Your task to perform on an android device: change notification settings in the gmail app Image 0: 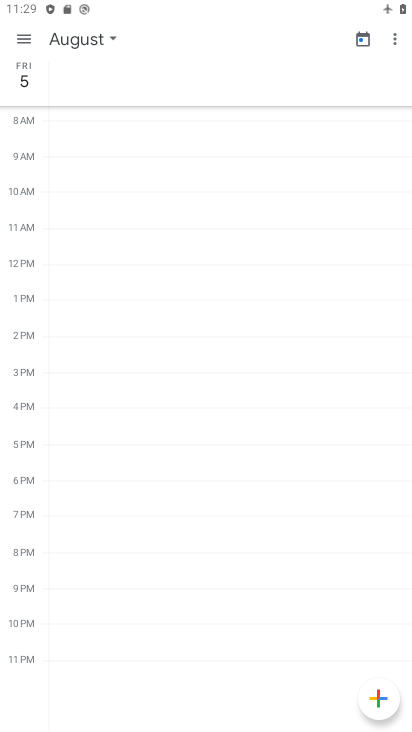
Step 0: press home button
Your task to perform on an android device: change notification settings in the gmail app Image 1: 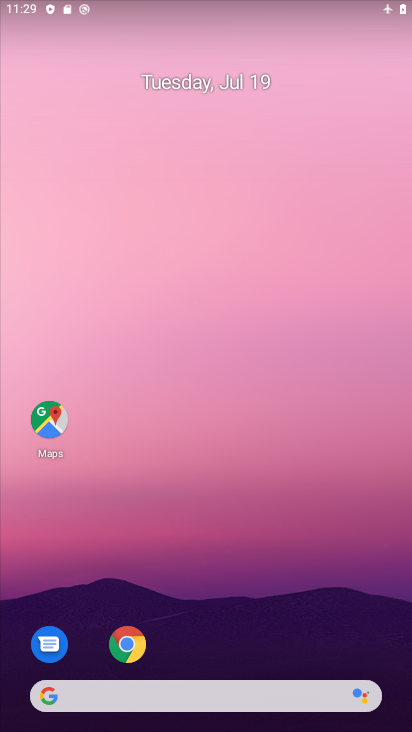
Step 1: drag from (216, 596) to (359, 14)
Your task to perform on an android device: change notification settings in the gmail app Image 2: 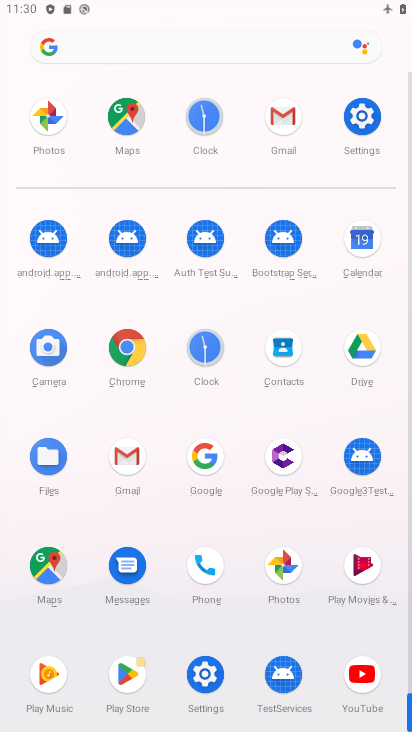
Step 2: click (133, 458)
Your task to perform on an android device: change notification settings in the gmail app Image 3: 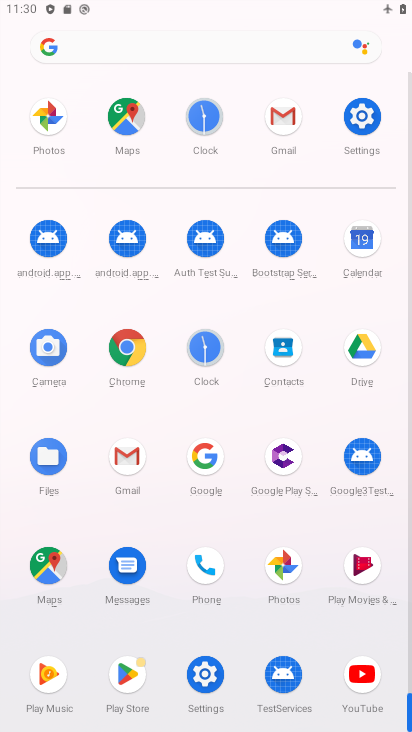
Step 3: click (131, 457)
Your task to perform on an android device: change notification settings in the gmail app Image 4: 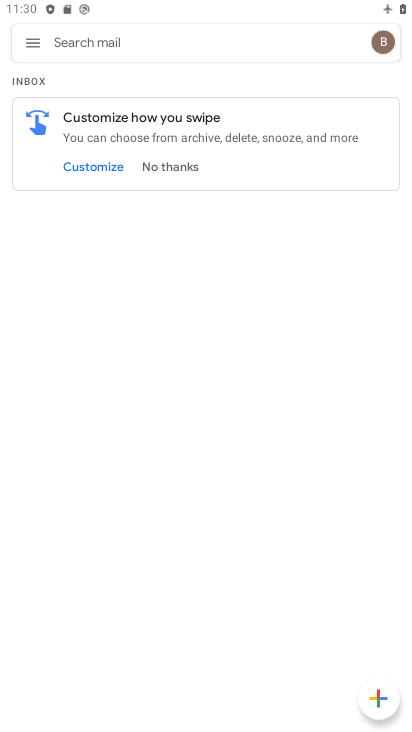
Step 4: click (176, 169)
Your task to perform on an android device: change notification settings in the gmail app Image 5: 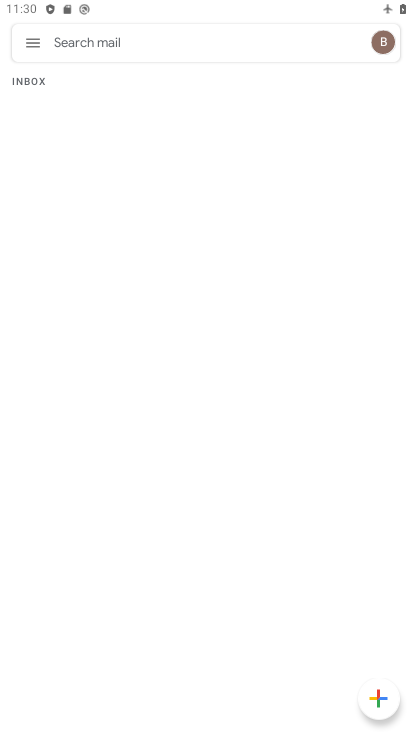
Step 5: drag from (194, 420) to (250, 214)
Your task to perform on an android device: change notification settings in the gmail app Image 6: 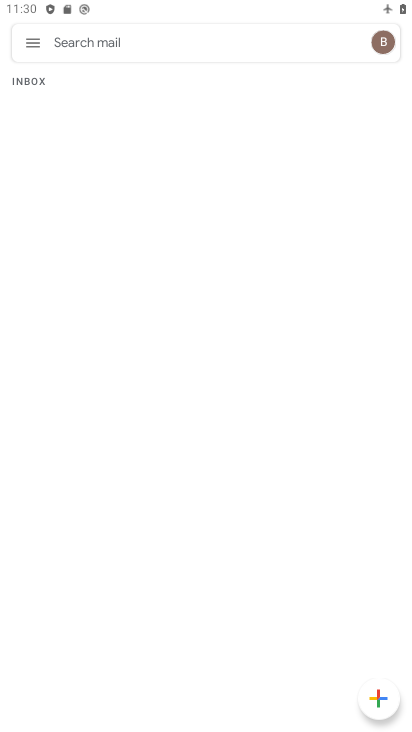
Step 6: drag from (206, 457) to (283, 188)
Your task to perform on an android device: change notification settings in the gmail app Image 7: 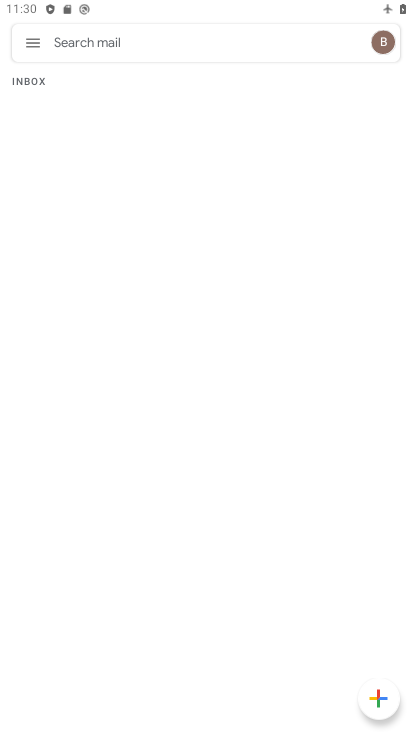
Step 7: drag from (288, 449) to (275, 179)
Your task to perform on an android device: change notification settings in the gmail app Image 8: 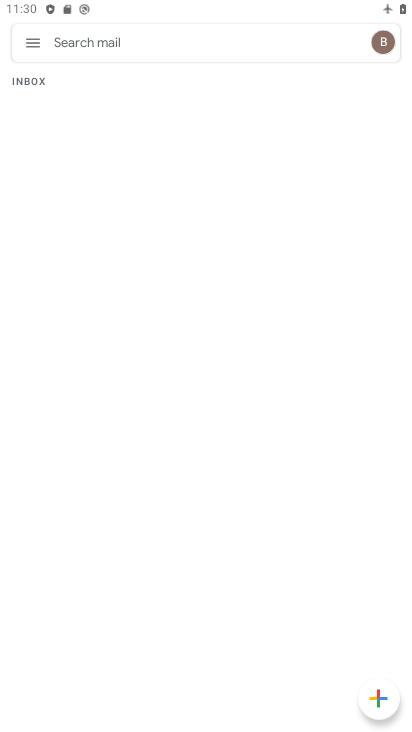
Step 8: click (37, 43)
Your task to perform on an android device: change notification settings in the gmail app Image 9: 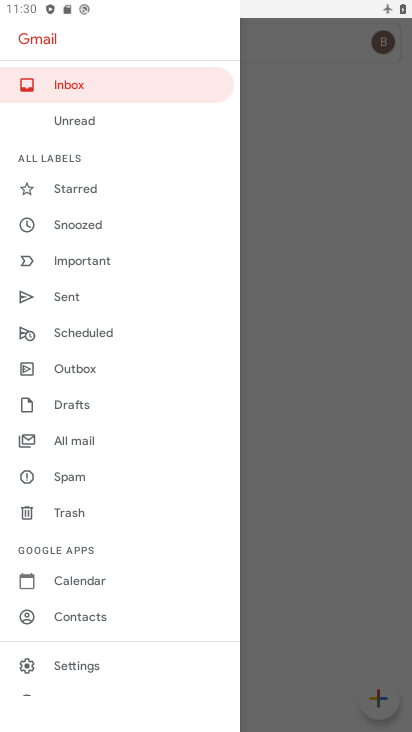
Step 9: click (70, 660)
Your task to perform on an android device: change notification settings in the gmail app Image 10: 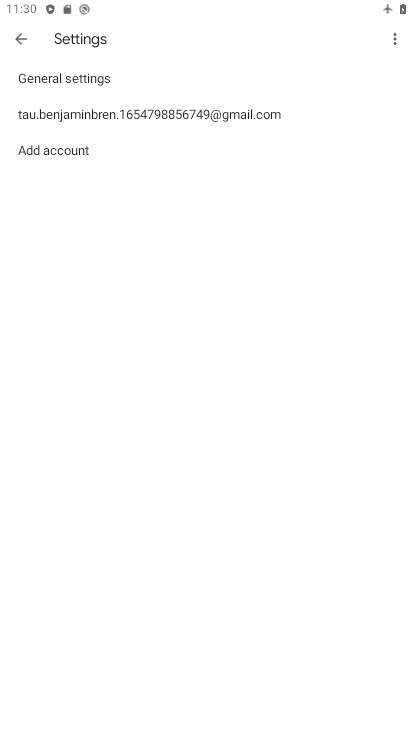
Step 10: click (140, 119)
Your task to perform on an android device: change notification settings in the gmail app Image 11: 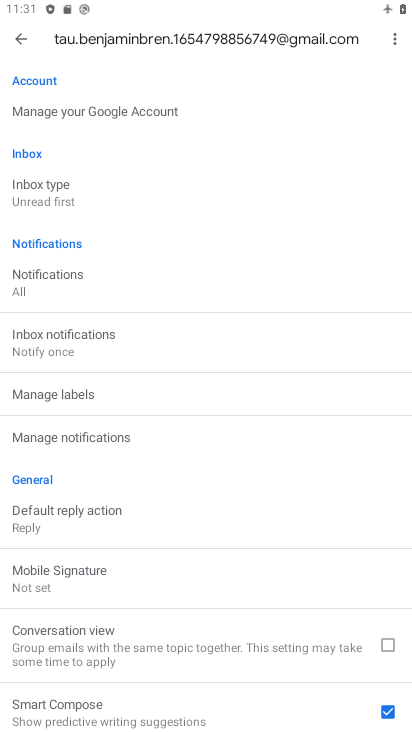
Step 11: click (109, 443)
Your task to perform on an android device: change notification settings in the gmail app Image 12: 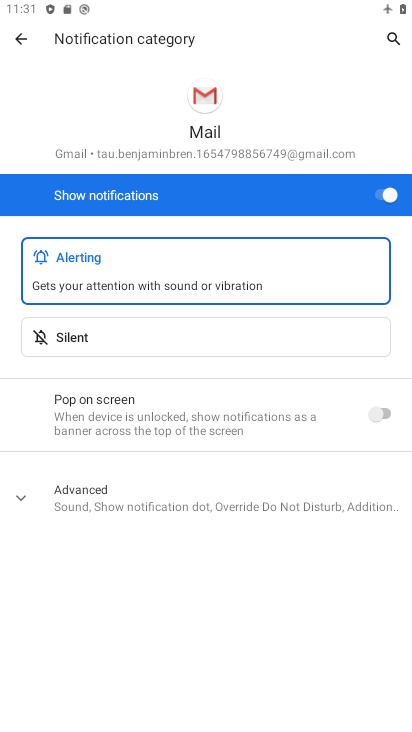
Step 12: drag from (188, 539) to (289, 178)
Your task to perform on an android device: change notification settings in the gmail app Image 13: 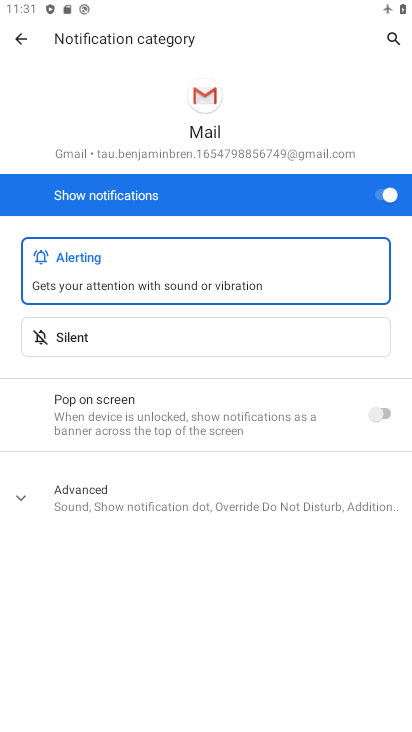
Step 13: drag from (146, 570) to (281, 162)
Your task to perform on an android device: change notification settings in the gmail app Image 14: 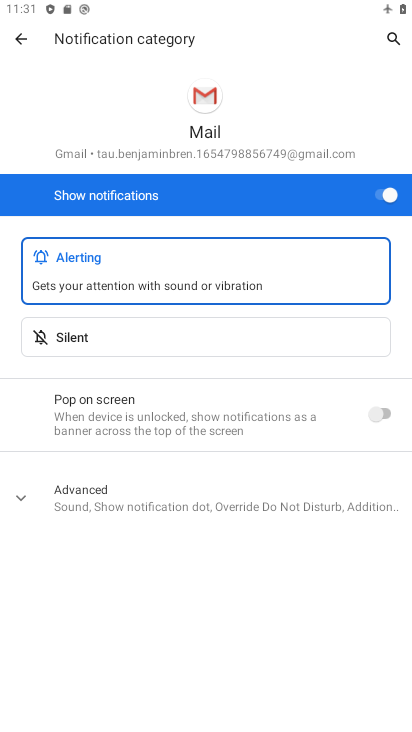
Step 14: click (383, 196)
Your task to perform on an android device: change notification settings in the gmail app Image 15: 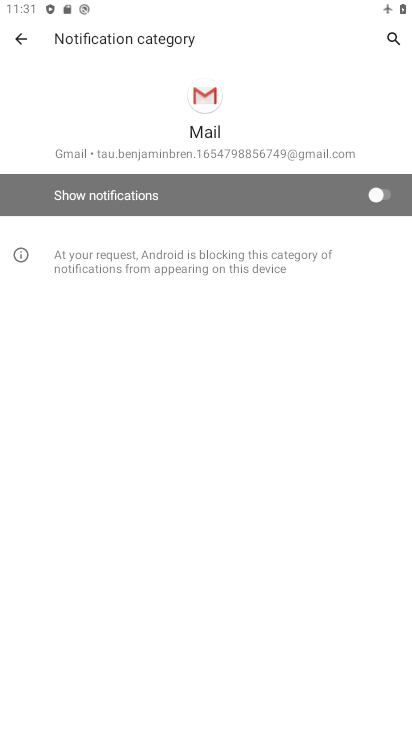
Step 15: task complete